Your task to perform on an android device: Check the news Image 0: 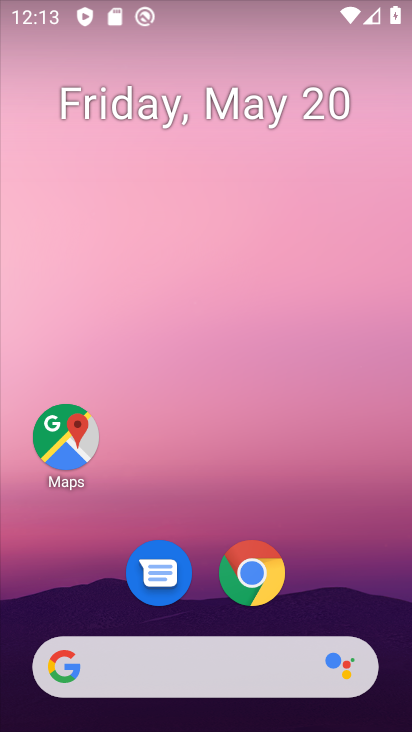
Step 0: click (228, 665)
Your task to perform on an android device: Check the news Image 1: 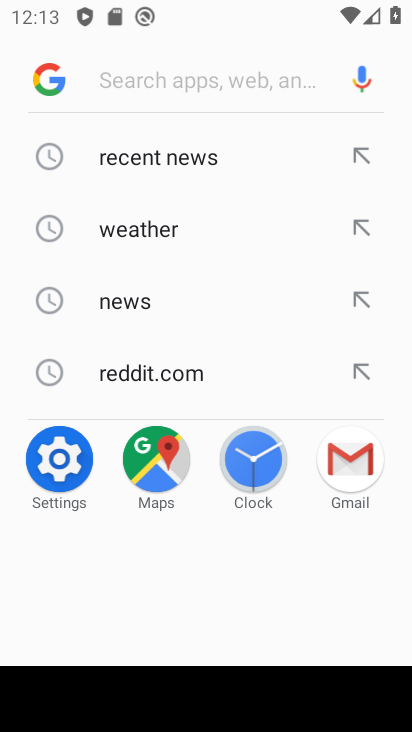
Step 1: type "news"
Your task to perform on an android device: Check the news Image 2: 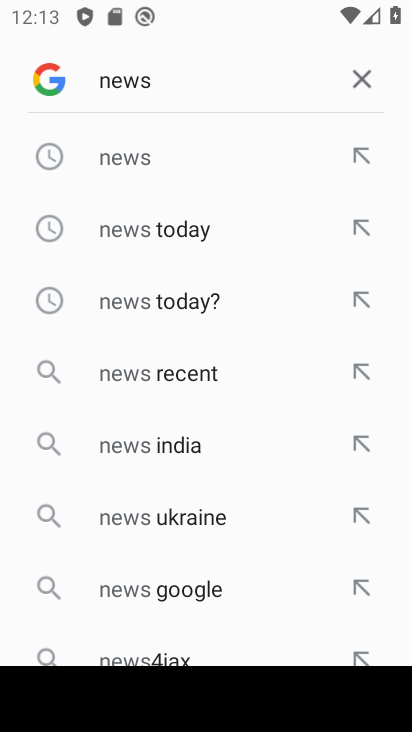
Step 2: click (115, 144)
Your task to perform on an android device: Check the news Image 3: 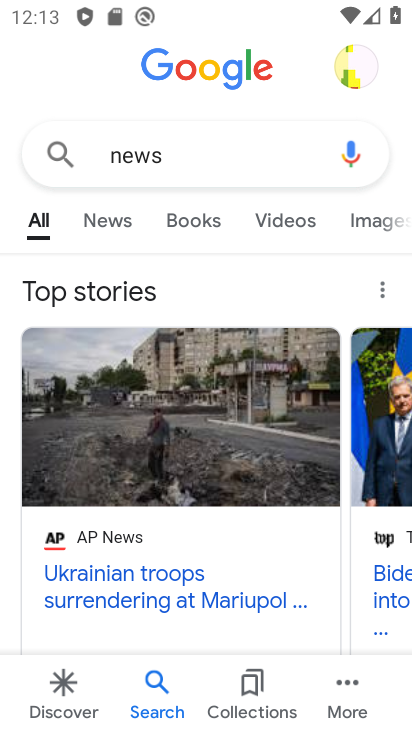
Step 3: drag from (239, 562) to (249, 172)
Your task to perform on an android device: Check the news Image 4: 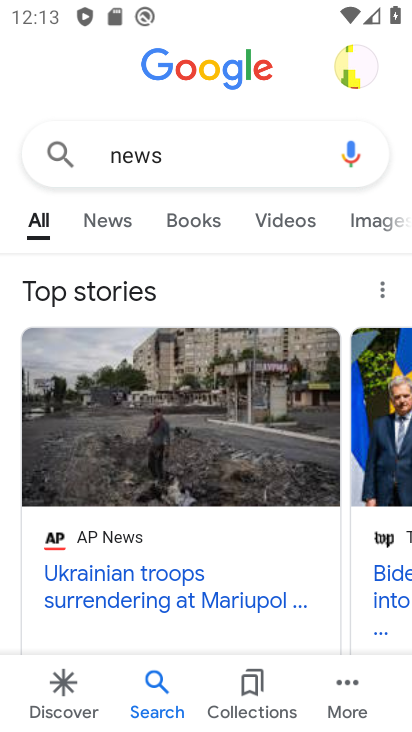
Step 4: click (108, 208)
Your task to perform on an android device: Check the news Image 5: 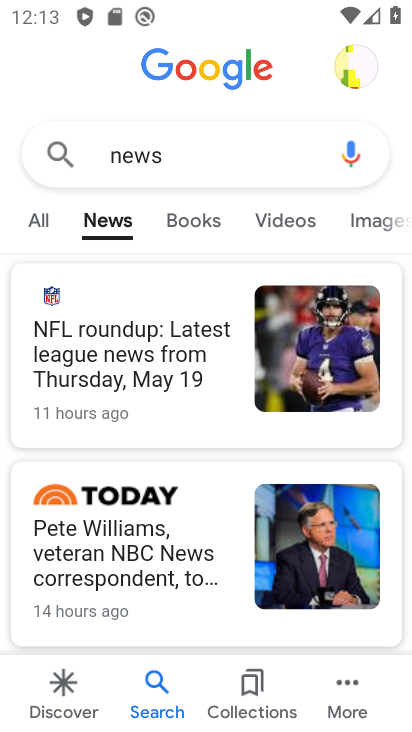
Step 5: task complete